Your task to perform on an android device: find photos in the google photos app Image 0: 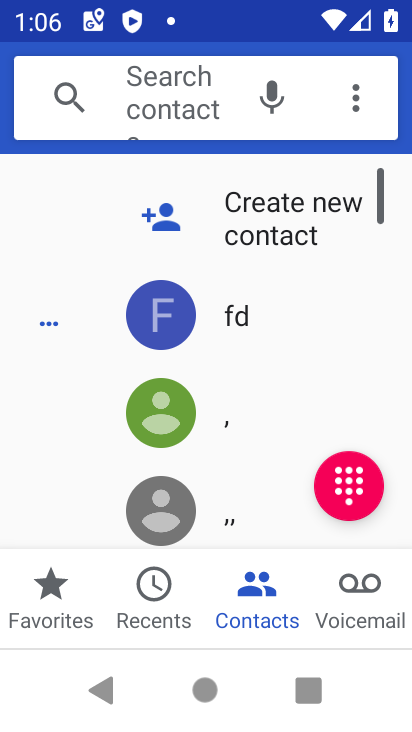
Step 0: press home button
Your task to perform on an android device: find photos in the google photos app Image 1: 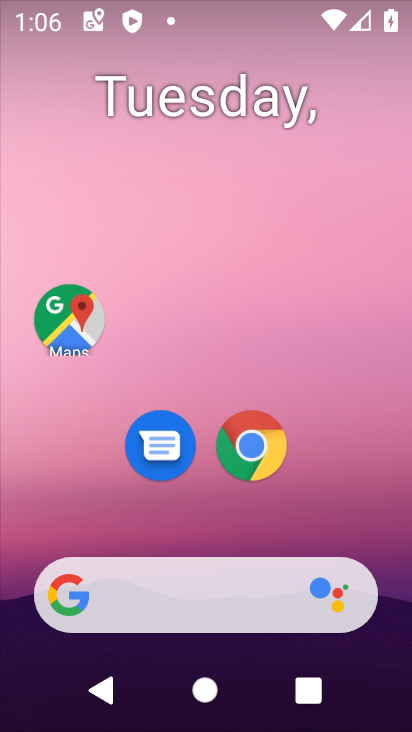
Step 1: drag from (346, 442) to (340, 70)
Your task to perform on an android device: find photos in the google photos app Image 2: 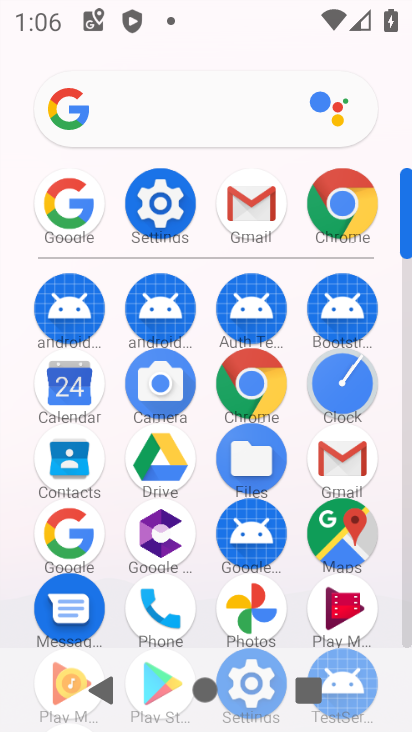
Step 2: drag from (395, 478) to (408, 124)
Your task to perform on an android device: find photos in the google photos app Image 3: 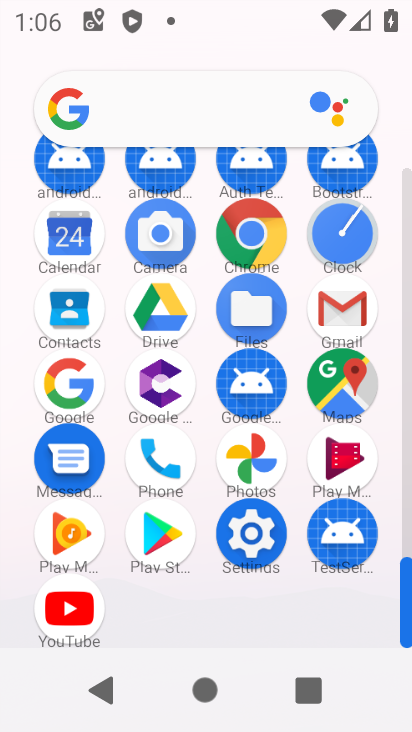
Step 3: click (261, 454)
Your task to perform on an android device: find photos in the google photos app Image 4: 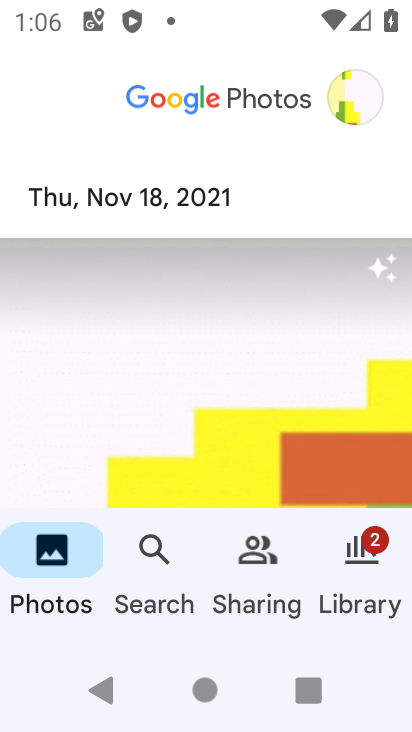
Step 4: click (78, 565)
Your task to perform on an android device: find photos in the google photos app Image 5: 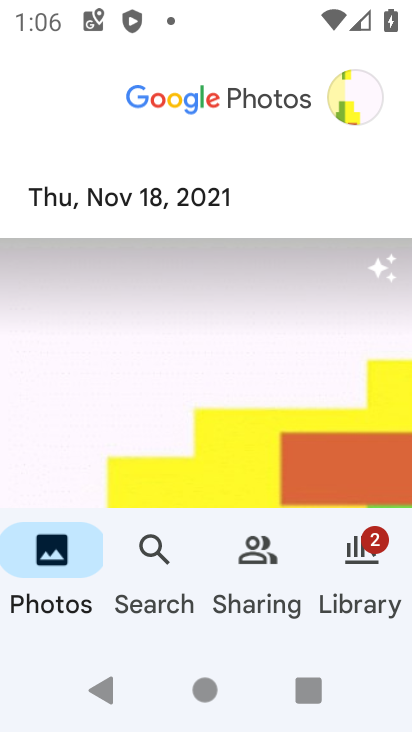
Step 5: task complete